Your task to perform on an android device: Go to Yahoo.com Image 0: 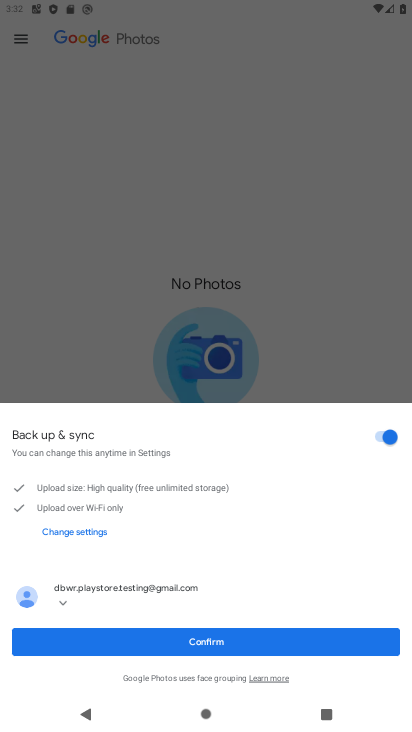
Step 0: press back button
Your task to perform on an android device: Go to Yahoo.com Image 1: 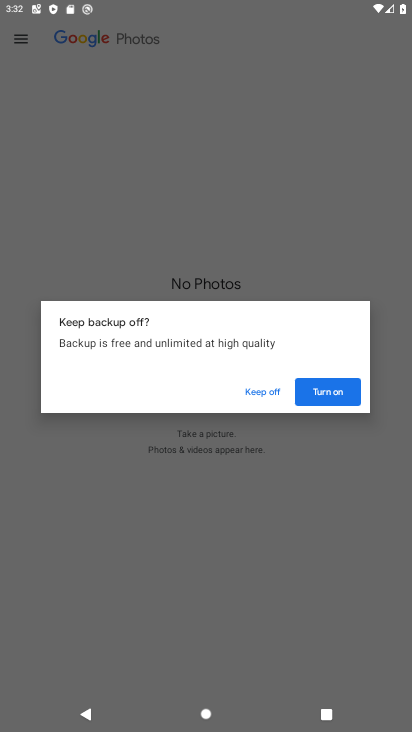
Step 1: press home button
Your task to perform on an android device: Go to Yahoo.com Image 2: 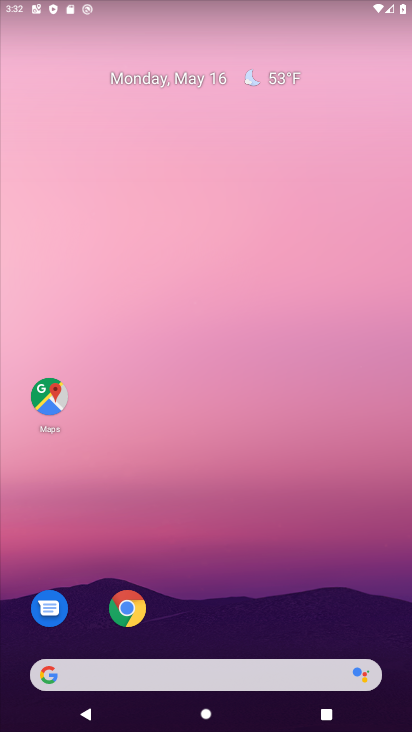
Step 2: click (127, 611)
Your task to perform on an android device: Go to Yahoo.com Image 3: 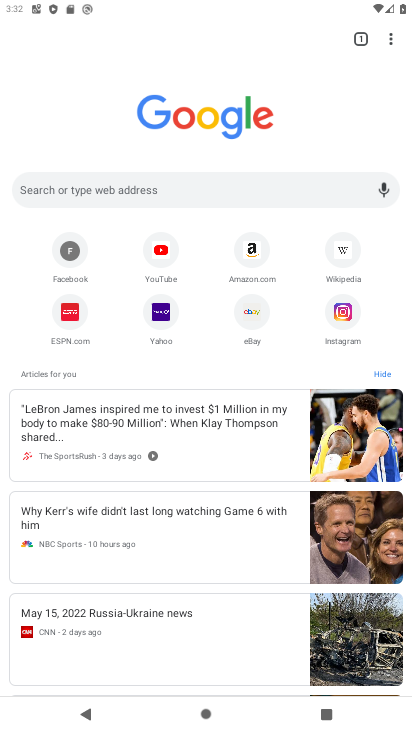
Step 3: click (204, 186)
Your task to perform on an android device: Go to Yahoo.com Image 4: 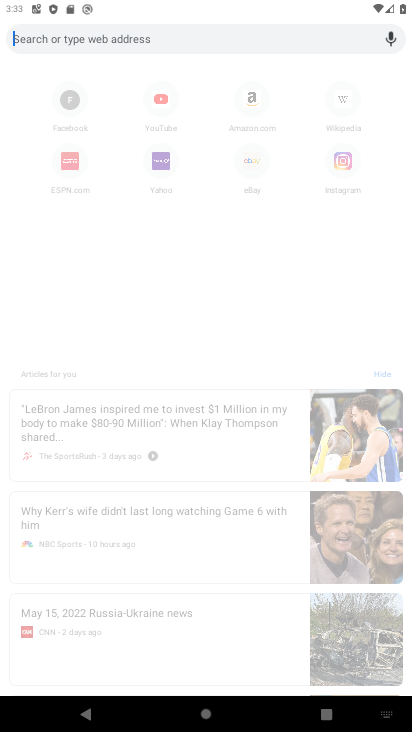
Step 4: type "Yahoo.com"
Your task to perform on an android device: Go to Yahoo.com Image 5: 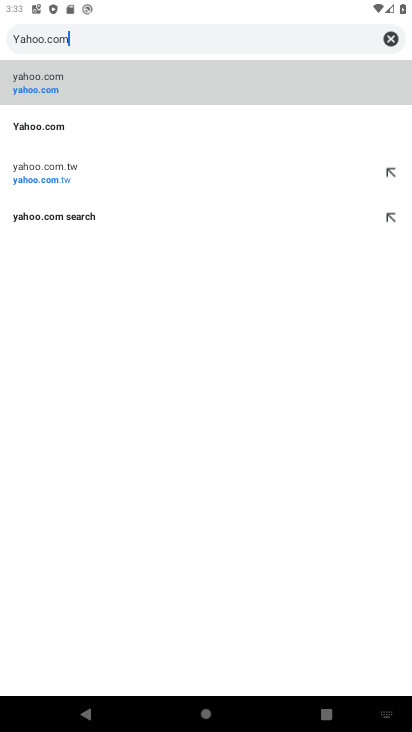
Step 5: click (50, 131)
Your task to perform on an android device: Go to Yahoo.com Image 6: 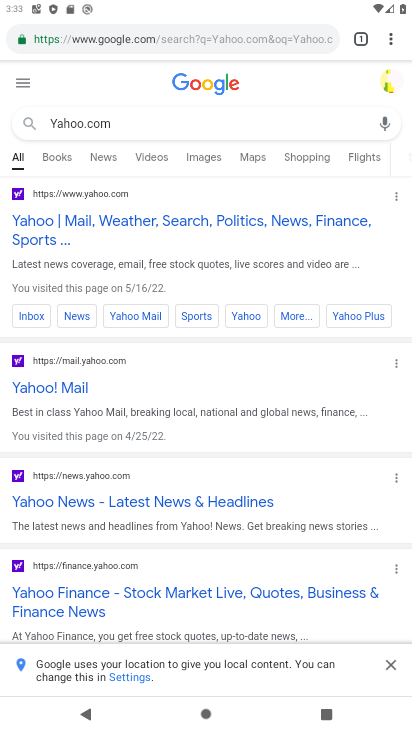
Step 6: click (71, 219)
Your task to perform on an android device: Go to Yahoo.com Image 7: 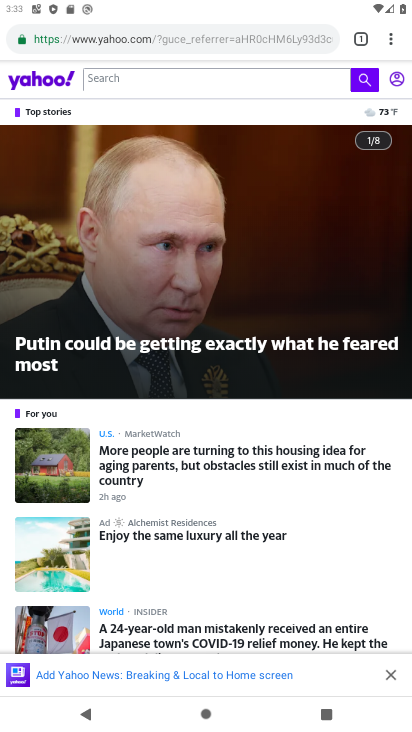
Step 7: task complete